Your task to perform on an android device: turn on priority inbox in the gmail app Image 0: 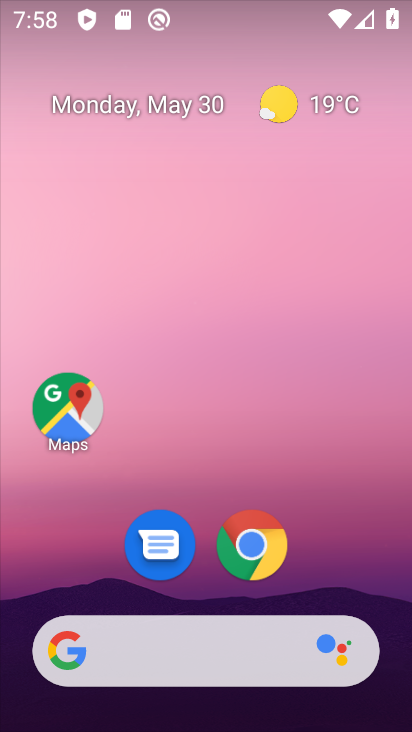
Step 0: drag from (322, 575) to (267, 89)
Your task to perform on an android device: turn on priority inbox in the gmail app Image 1: 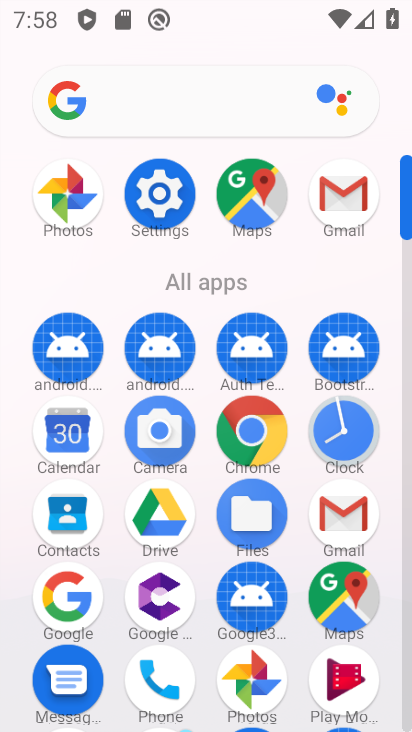
Step 1: click (345, 189)
Your task to perform on an android device: turn on priority inbox in the gmail app Image 2: 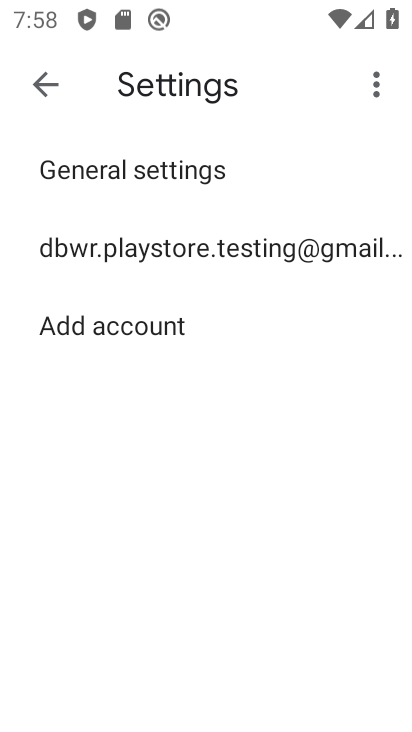
Step 2: click (176, 259)
Your task to perform on an android device: turn on priority inbox in the gmail app Image 3: 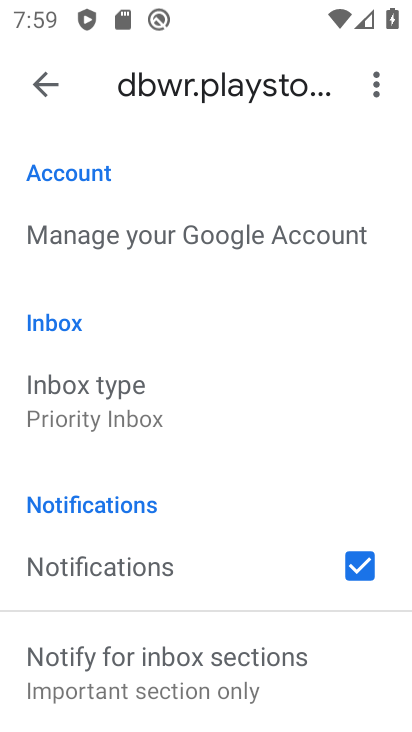
Step 3: task complete